Your task to perform on an android device: toggle priority inbox in the gmail app Image 0: 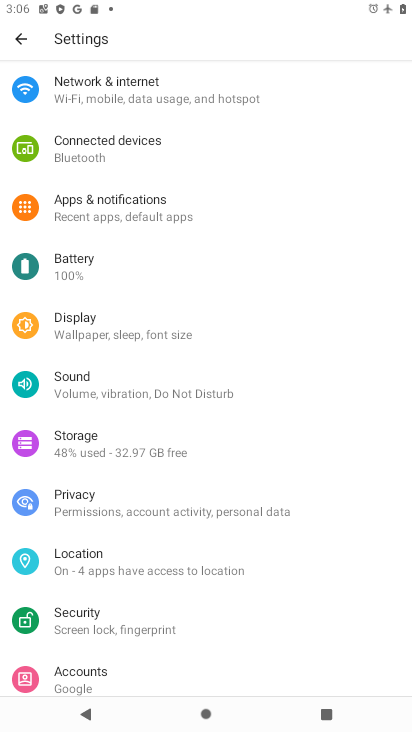
Step 0: press home button
Your task to perform on an android device: toggle priority inbox in the gmail app Image 1: 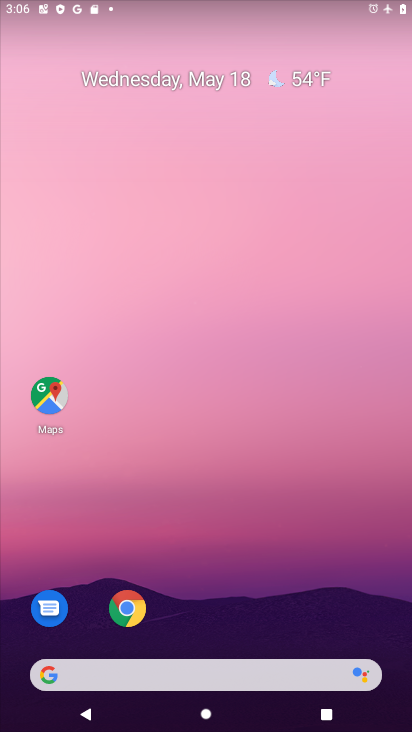
Step 1: drag from (229, 585) to (249, 32)
Your task to perform on an android device: toggle priority inbox in the gmail app Image 2: 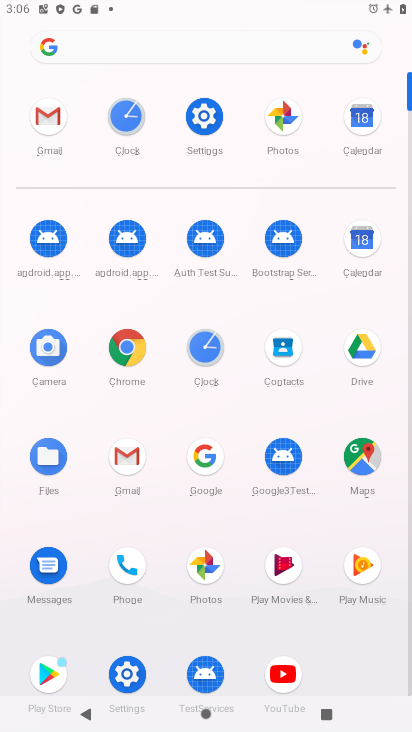
Step 2: click (122, 463)
Your task to perform on an android device: toggle priority inbox in the gmail app Image 3: 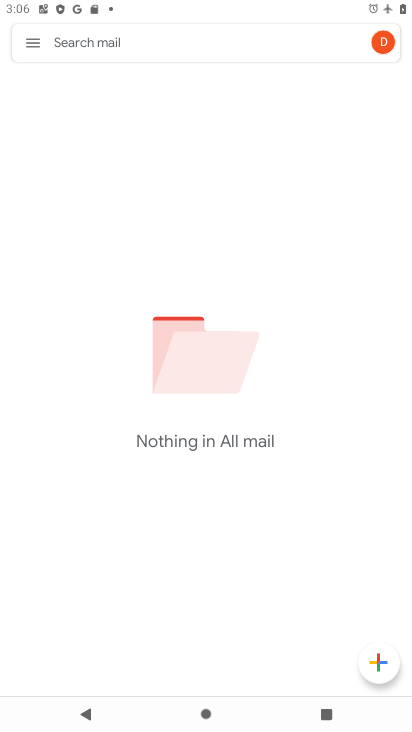
Step 3: click (21, 43)
Your task to perform on an android device: toggle priority inbox in the gmail app Image 4: 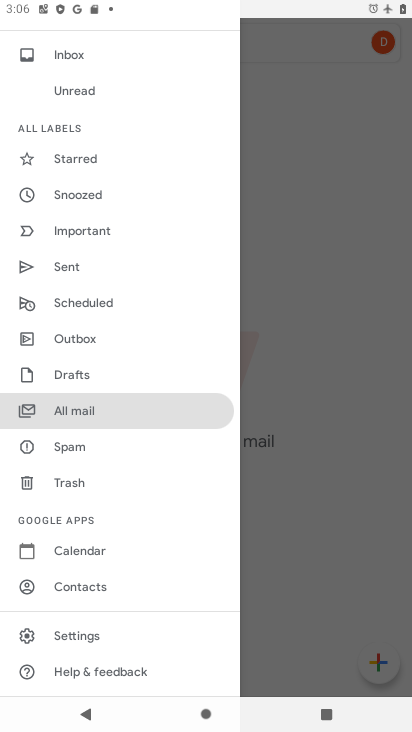
Step 4: click (89, 640)
Your task to perform on an android device: toggle priority inbox in the gmail app Image 5: 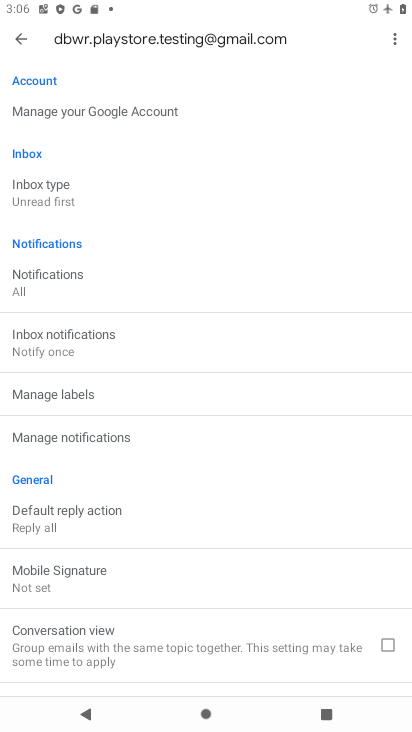
Step 5: click (66, 193)
Your task to perform on an android device: toggle priority inbox in the gmail app Image 6: 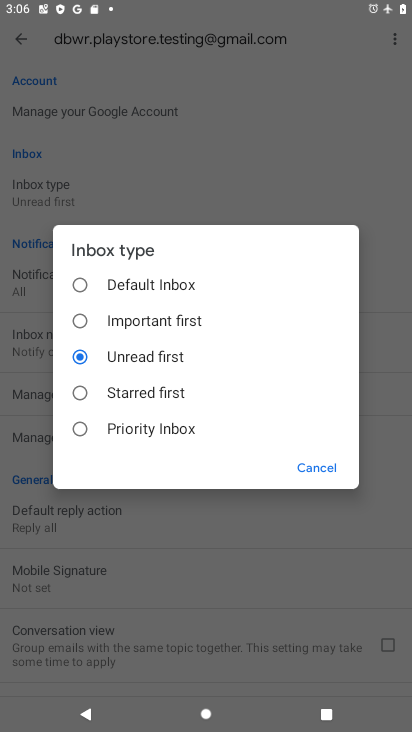
Step 6: click (85, 434)
Your task to perform on an android device: toggle priority inbox in the gmail app Image 7: 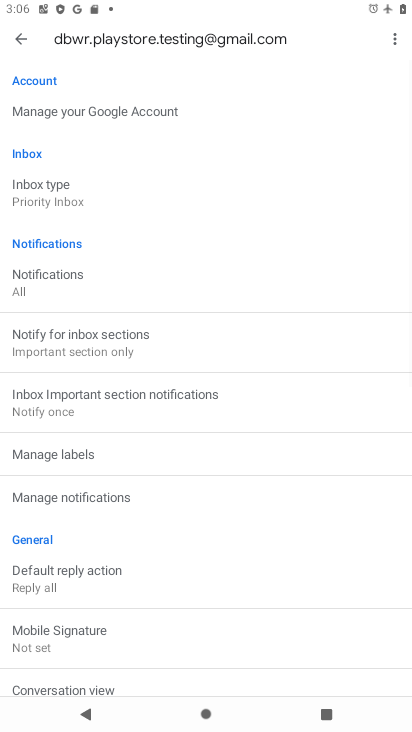
Step 7: task complete